Your task to perform on an android device: change keyboard looks Image 0: 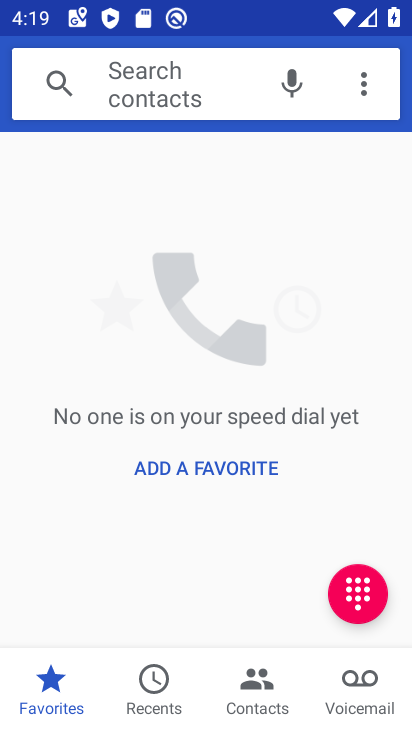
Step 0: press home button
Your task to perform on an android device: change keyboard looks Image 1: 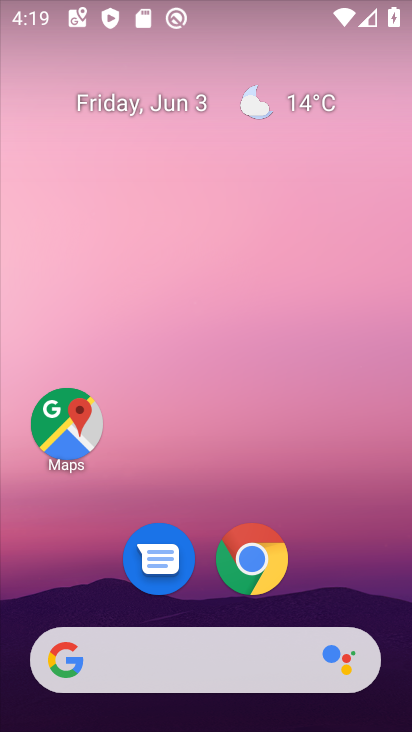
Step 1: drag from (349, 570) to (404, 140)
Your task to perform on an android device: change keyboard looks Image 2: 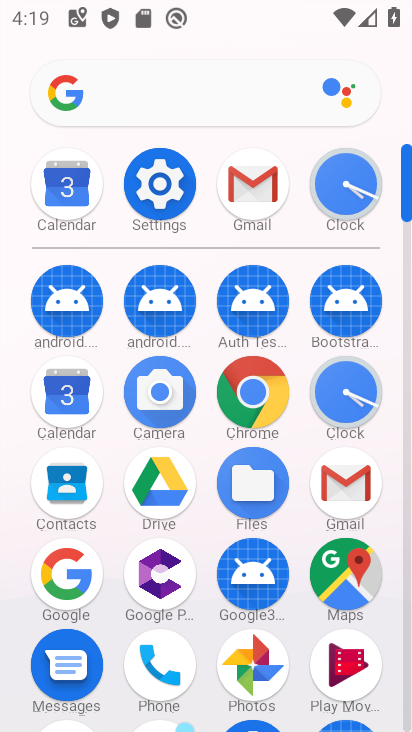
Step 2: click (162, 195)
Your task to perform on an android device: change keyboard looks Image 3: 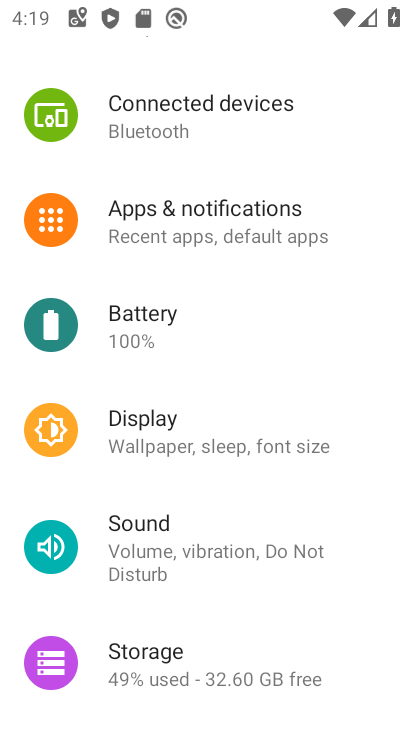
Step 3: drag from (244, 584) to (265, 193)
Your task to perform on an android device: change keyboard looks Image 4: 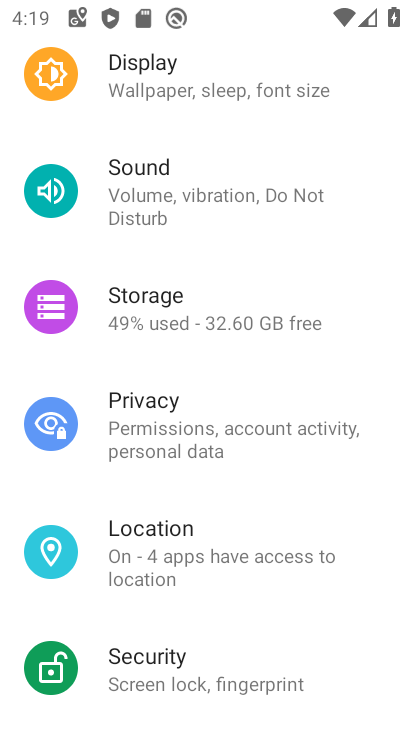
Step 4: drag from (252, 594) to (275, 226)
Your task to perform on an android device: change keyboard looks Image 5: 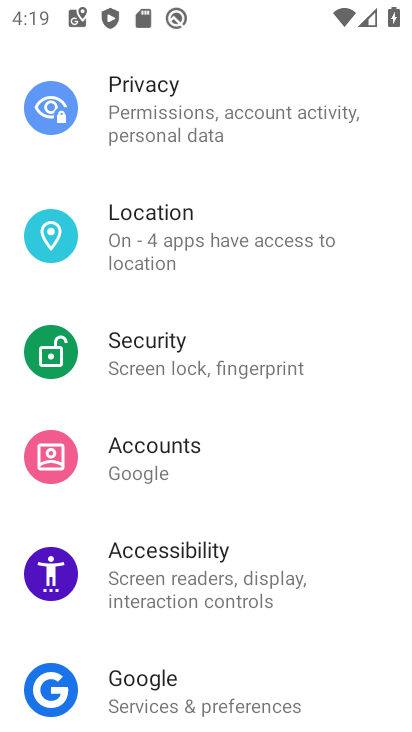
Step 5: drag from (264, 642) to (259, 207)
Your task to perform on an android device: change keyboard looks Image 6: 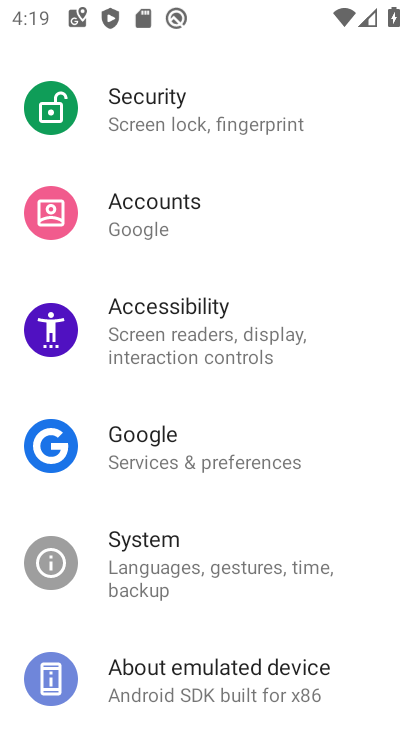
Step 6: click (158, 564)
Your task to perform on an android device: change keyboard looks Image 7: 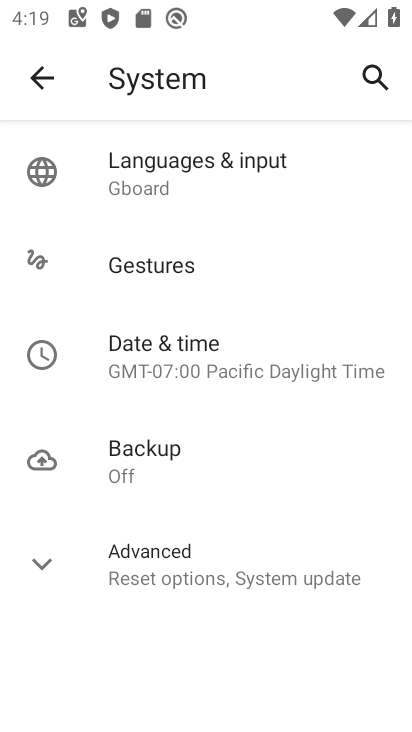
Step 7: click (151, 157)
Your task to perform on an android device: change keyboard looks Image 8: 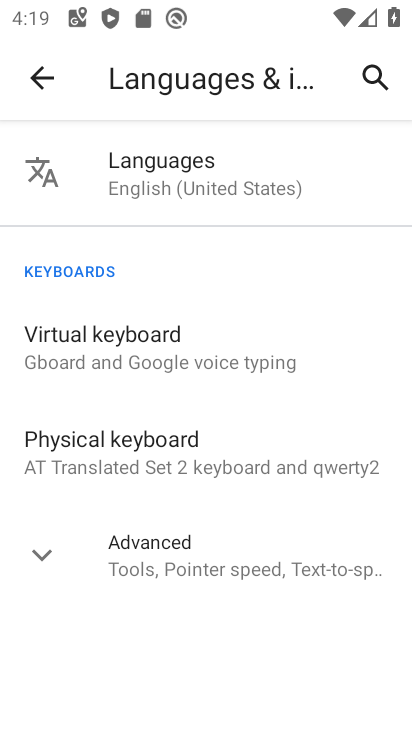
Step 8: click (125, 356)
Your task to perform on an android device: change keyboard looks Image 9: 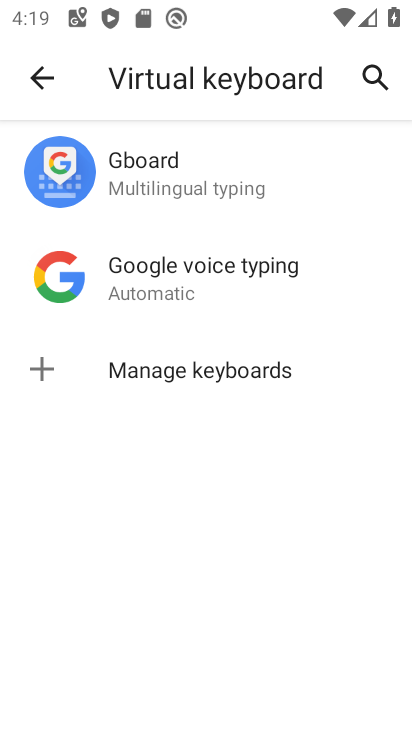
Step 9: click (143, 173)
Your task to perform on an android device: change keyboard looks Image 10: 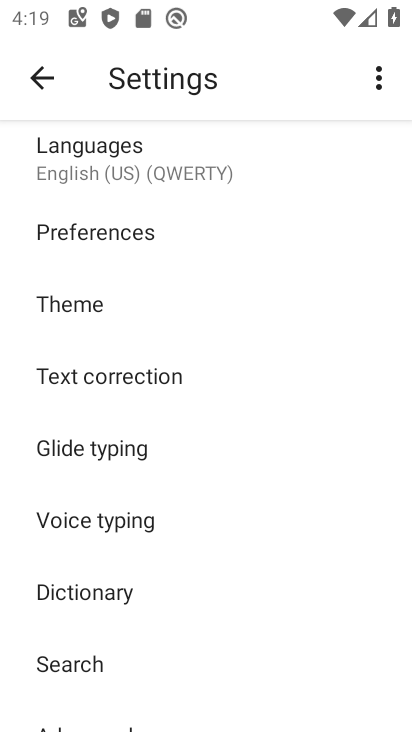
Step 10: click (66, 298)
Your task to perform on an android device: change keyboard looks Image 11: 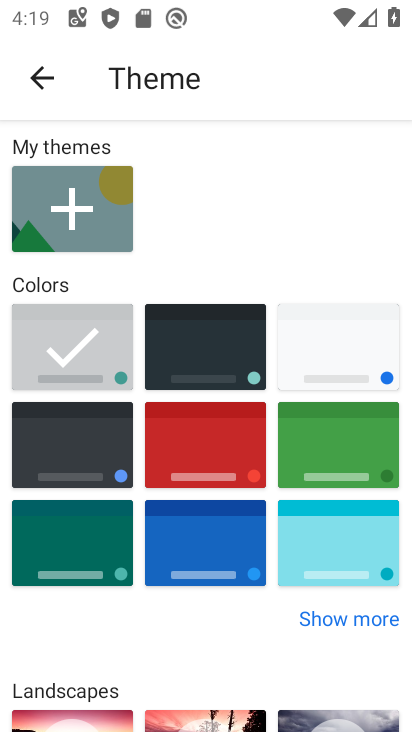
Step 11: click (199, 349)
Your task to perform on an android device: change keyboard looks Image 12: 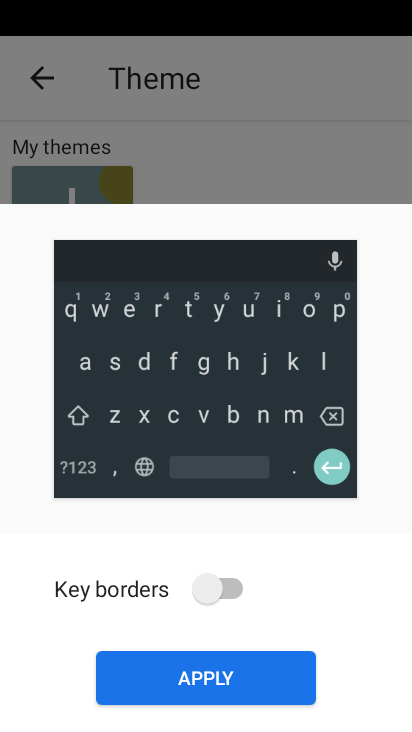
Step 12: click (223, 588)
Your task to perform on an android device: change keyboard looks Image 13: 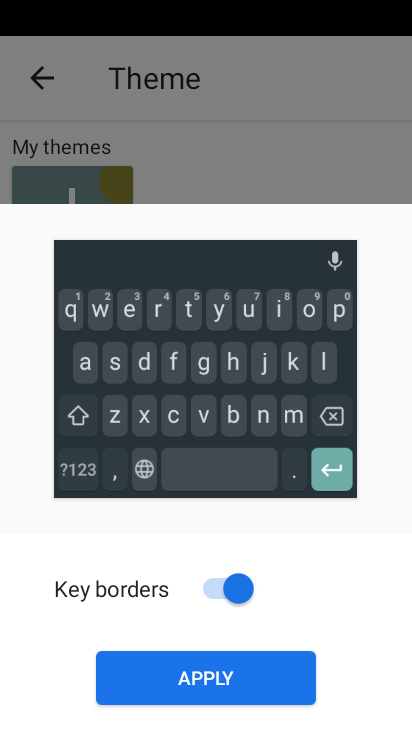
Step 13: click (209, 691)
Your task to perform on an android device: change keyboard looks Image 14: 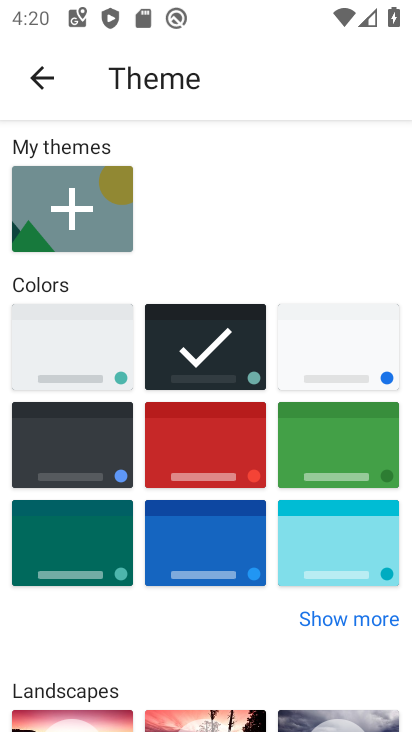
Step 14: task complete